Your task to perform on an android device: Go to Android settings Image 0: 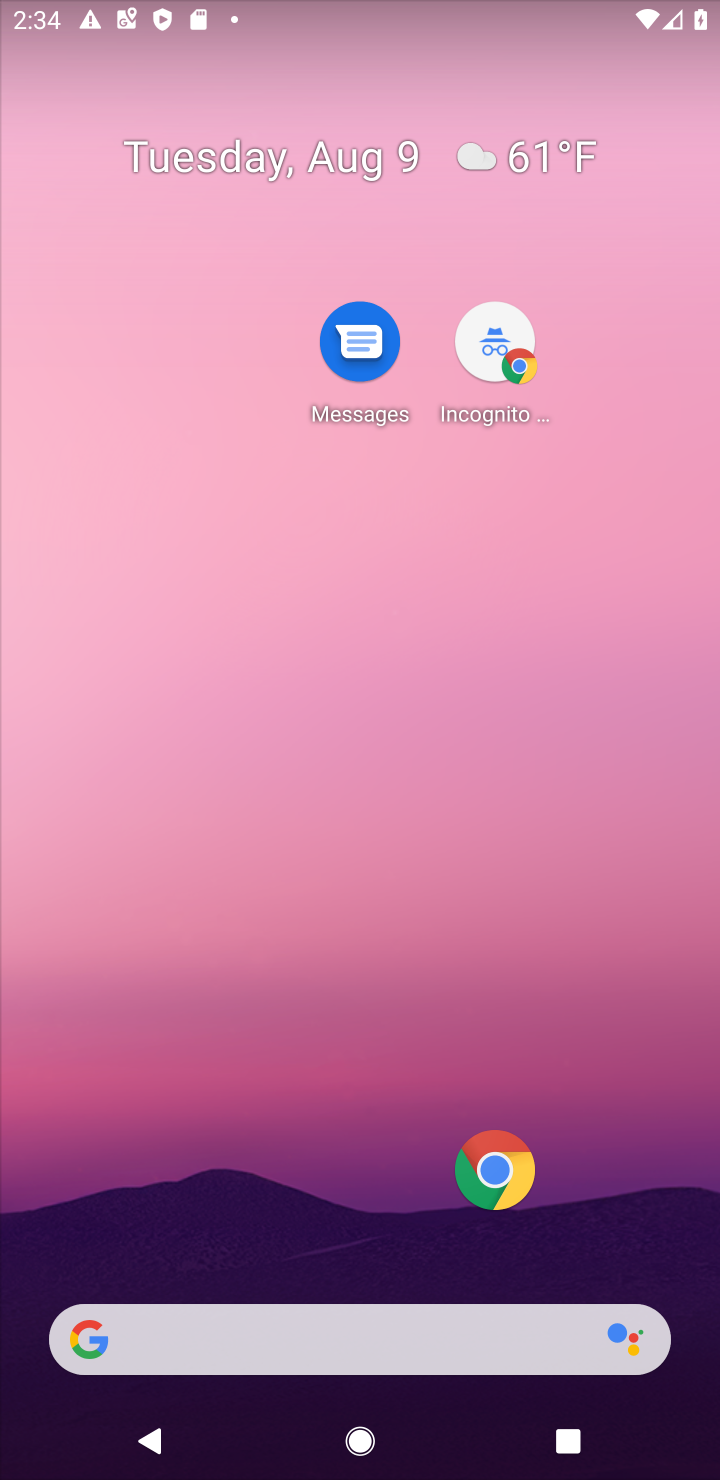
Step 0: drag from (285, 877) to (613, 71)
Your task to perform on an android device: Go to Android settings Image 1: 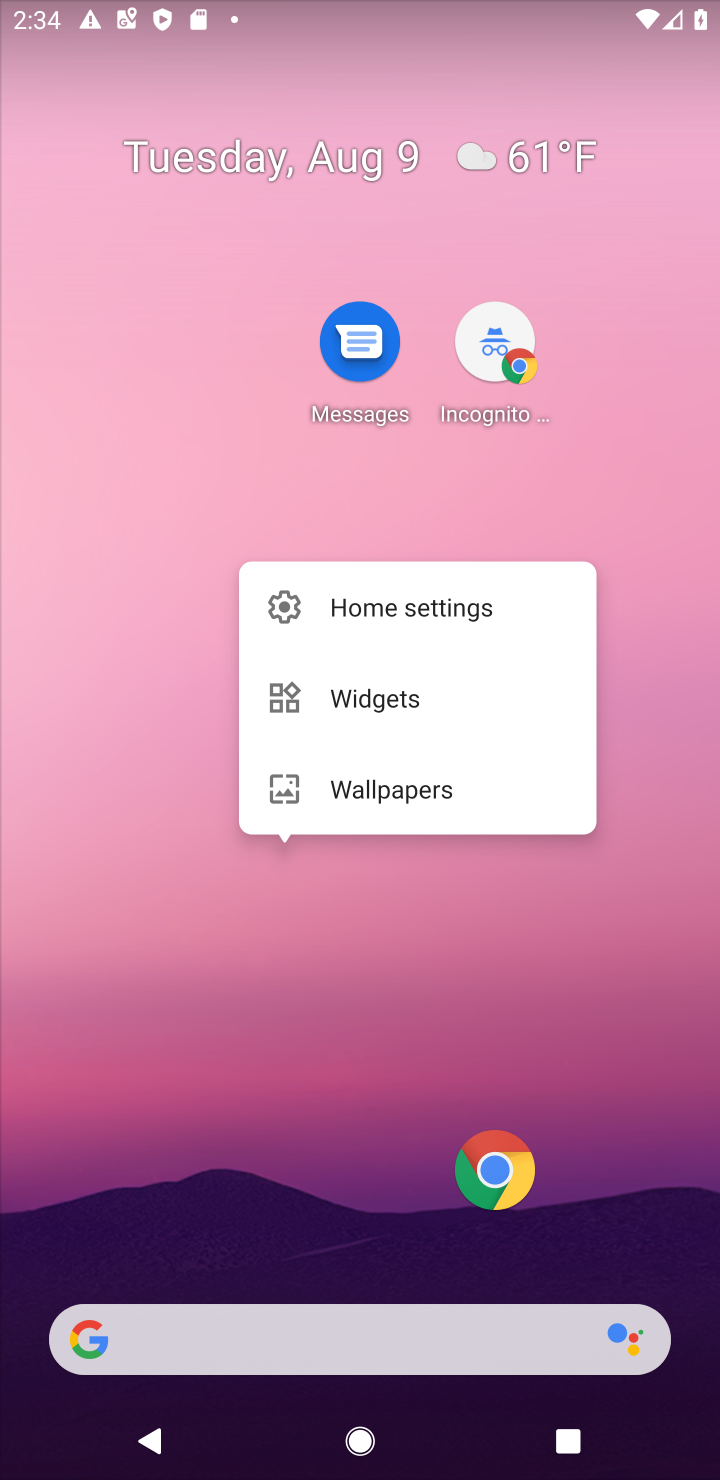
Step 1: click (301, 1102)
Your task to perform on an android device: Go to Android settings Image 2: 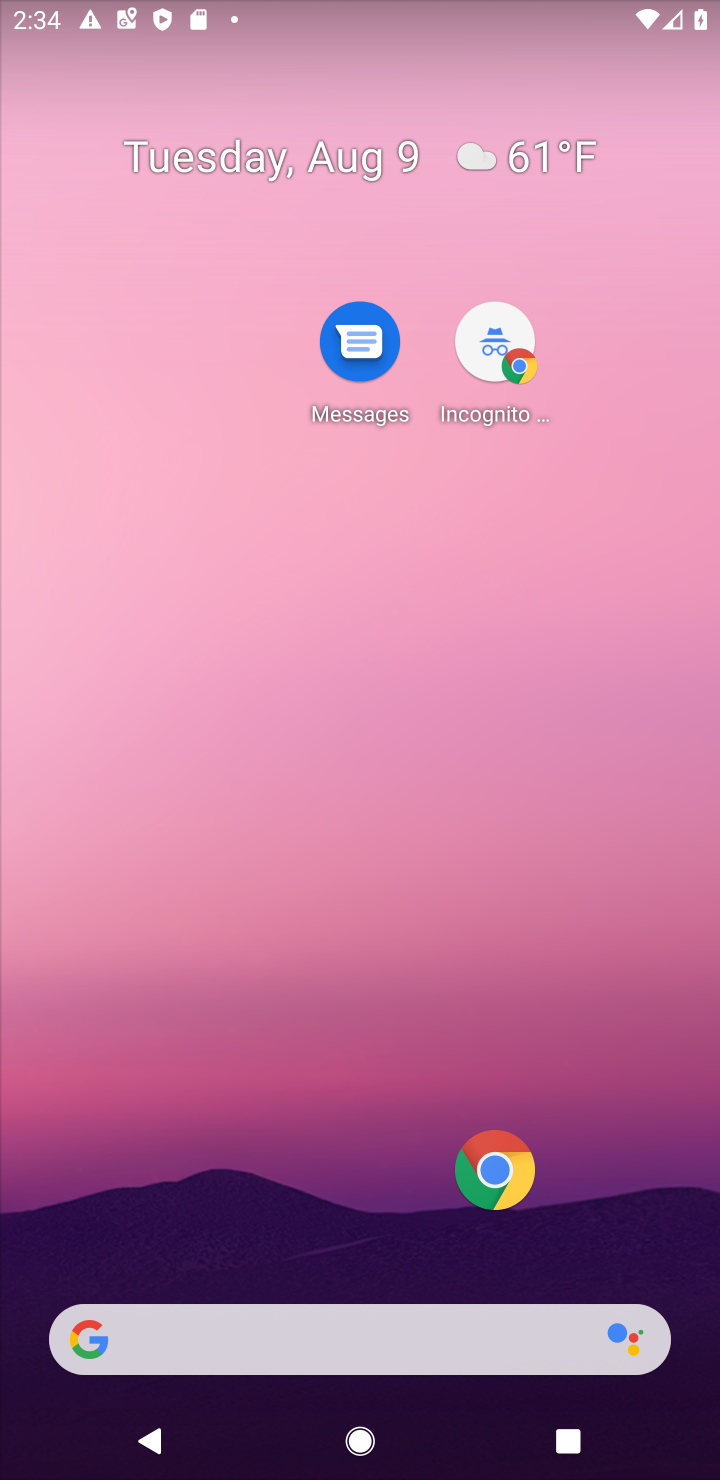
Step 2: drag from (312, 1280) to (362, 0)
Your task to perform on an android device: Go to Android settings Image 3: 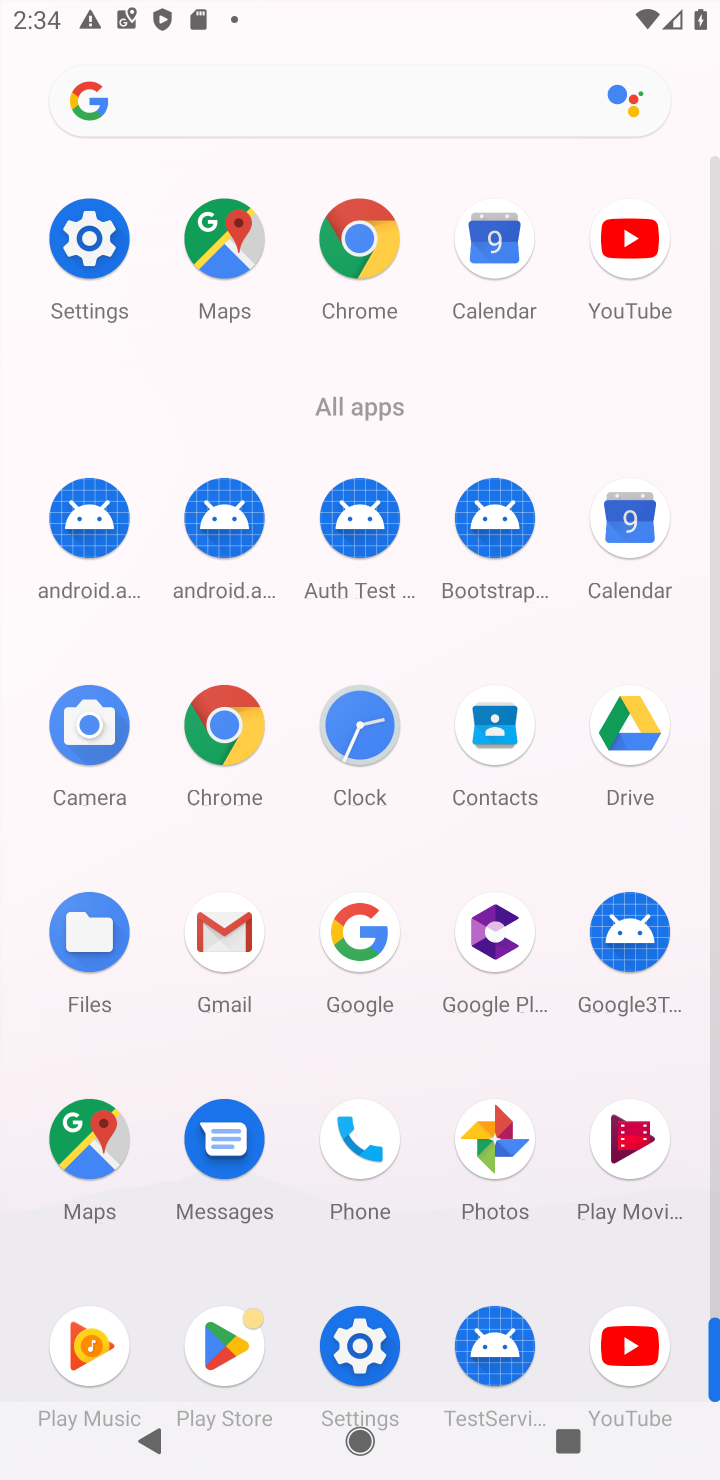
Step 3: click (353, 1357)
Your task to perform on an android device: Go to Android settings Image 4: 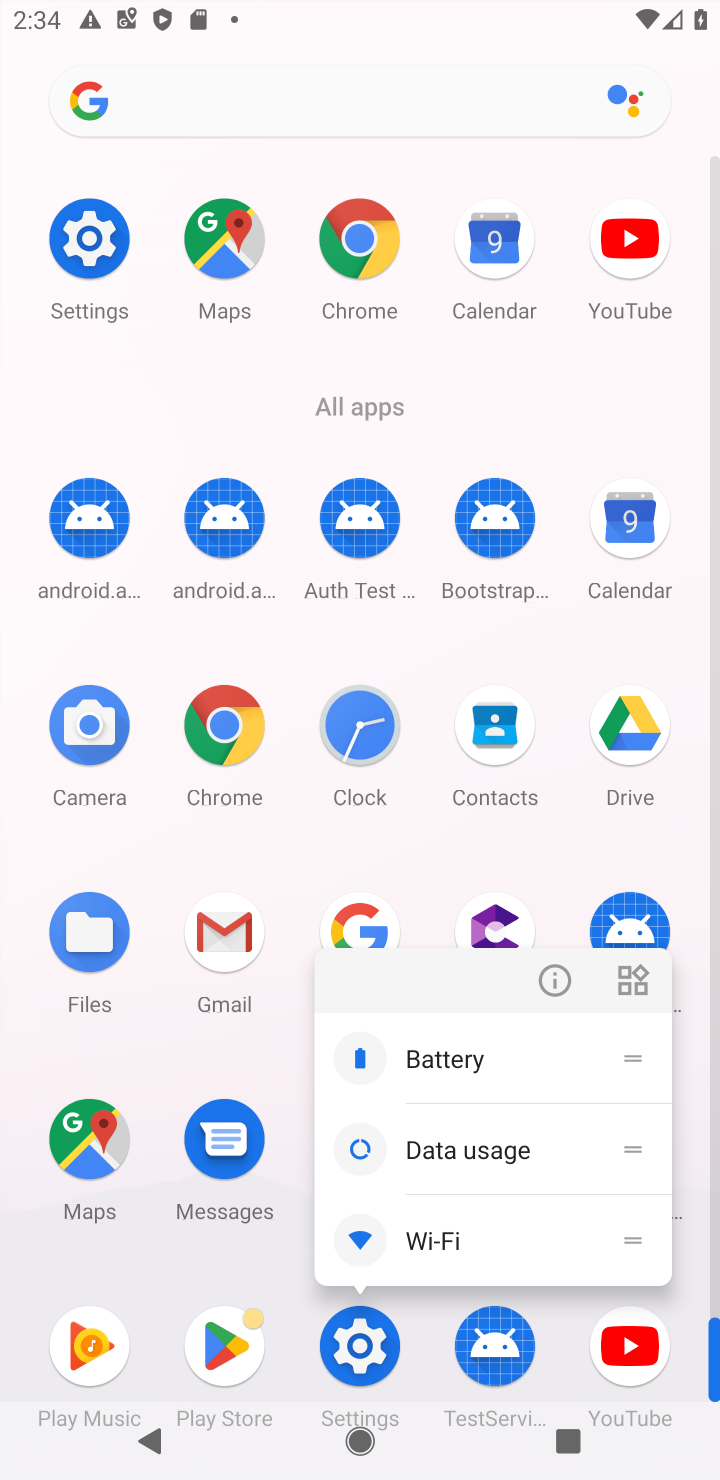
Step 4: click (356, 1323)
Your task to perform on an android device: Go to Android settings Image 5: 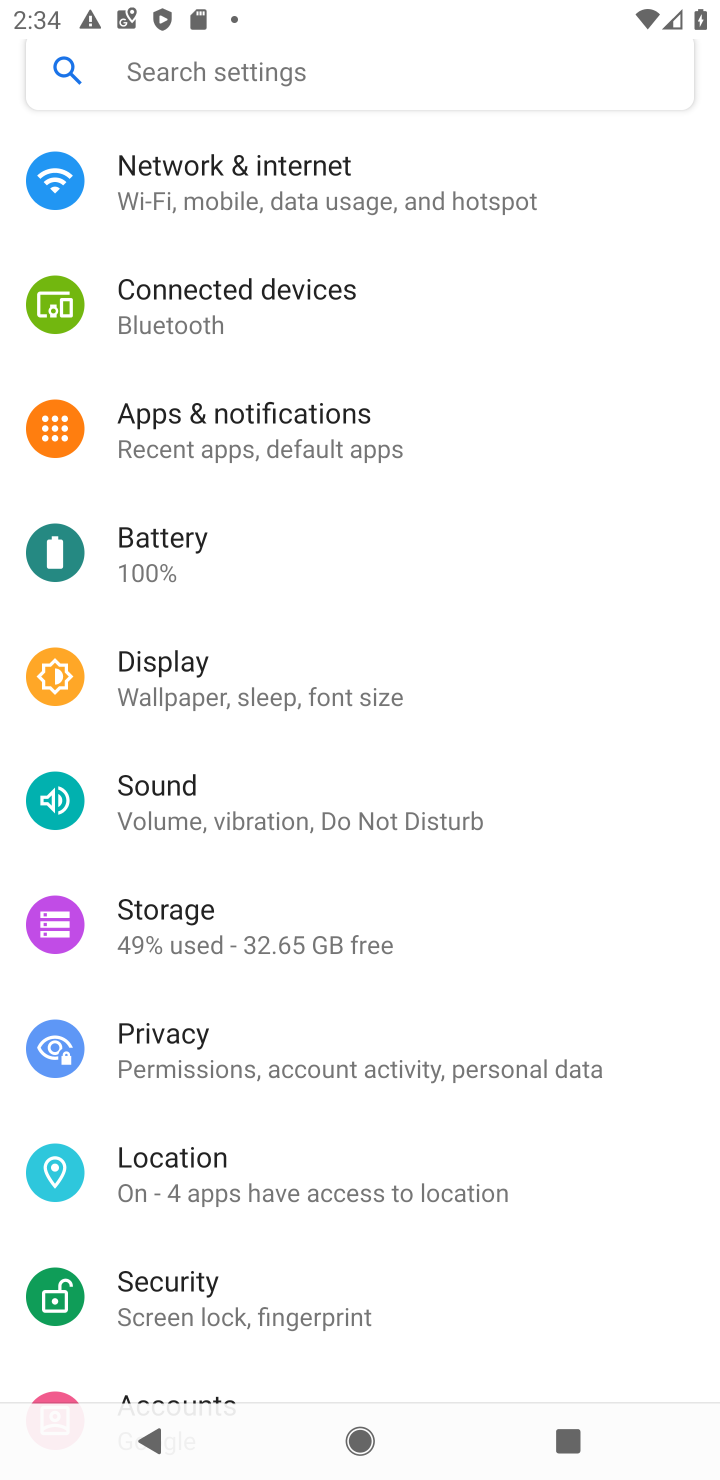
Step 5: drag from (348, 1124) to (489, 56)
Your task to perform on an android device: Go to Android settings Image 6: 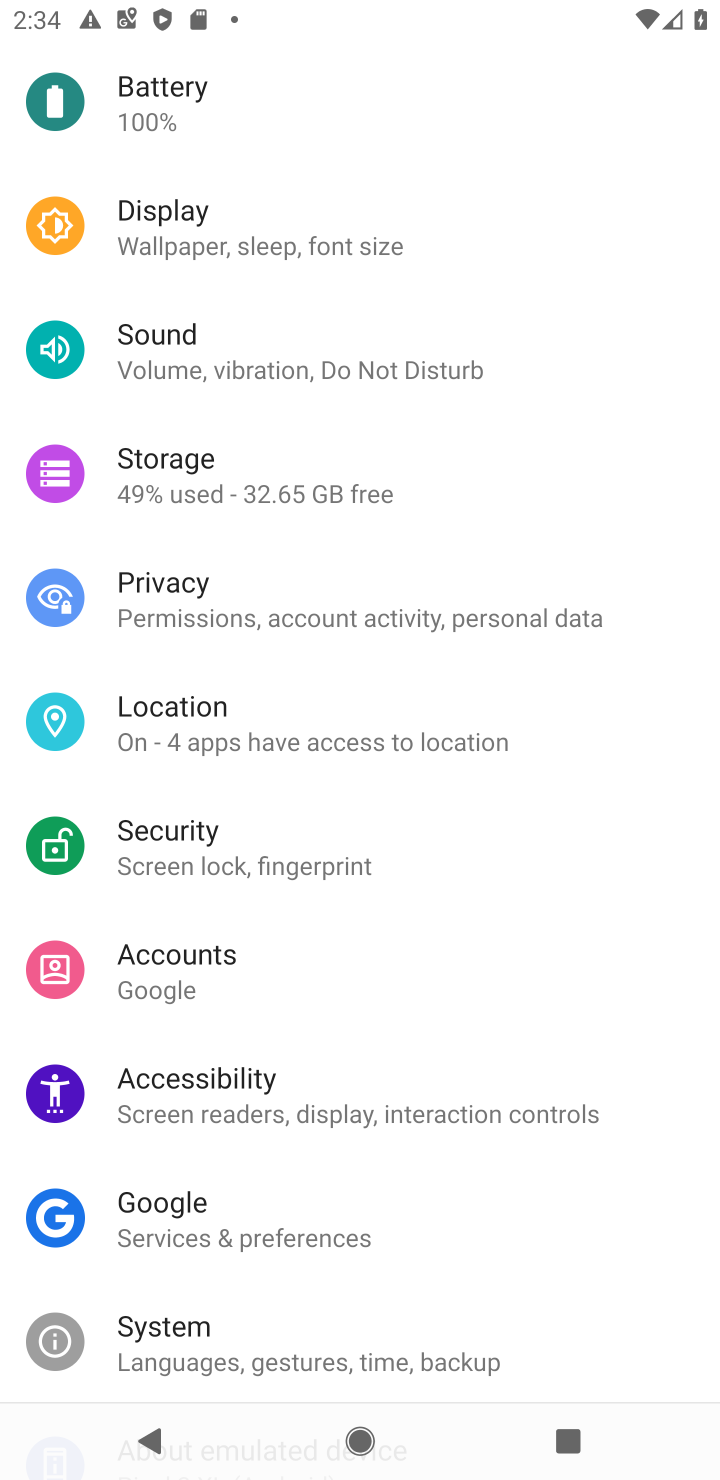
Step 6: drag from (327, 1239) to (467, 150)
Your task to perform on an android device: Go to Android settings Image 7: 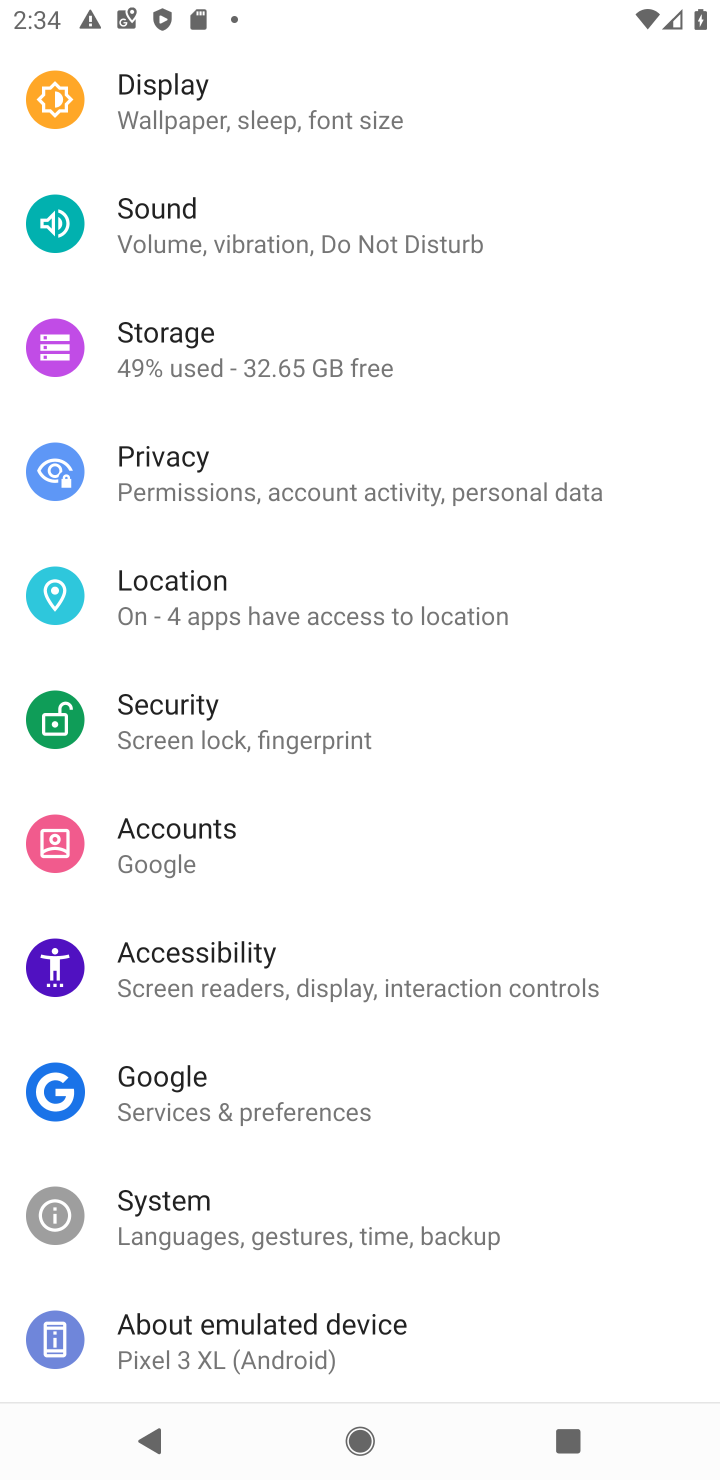
Step 7: click (281, 1348)
Your task to perform on an android device: Go to Android settings Image 8: 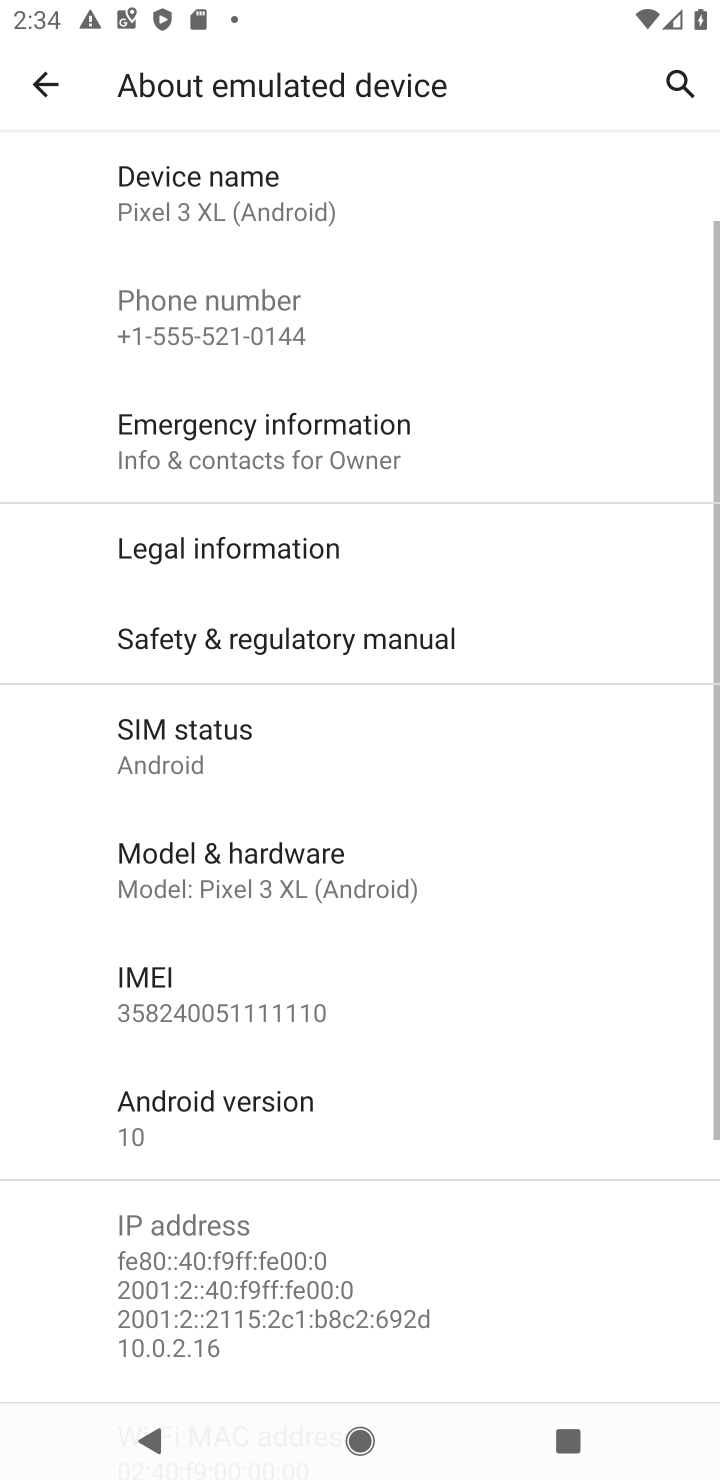
Step 8: task complete